Your task to perform on an android device: open the mobile data screen to see how much data has been used Image 0: 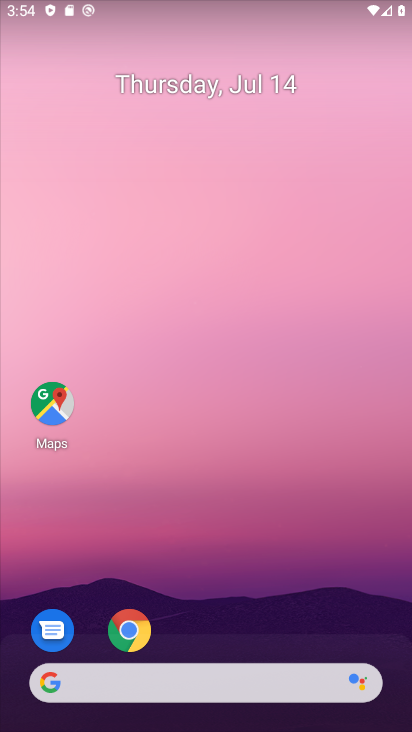
Step 0: drag from (180, 659) to (279, 76)
Your task to perform on an android device: open the mobile data screen to see how much data has been used Image 1: 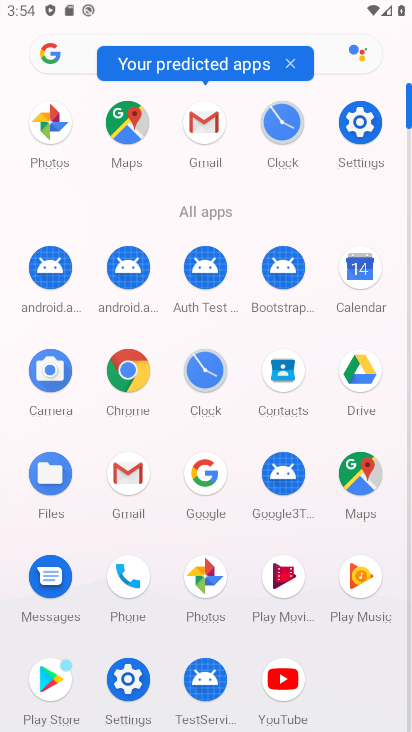
Step 1: click (122, 681)
Your task to perform on an android device: open the mobile data screen to see how much data has been used Image 2: 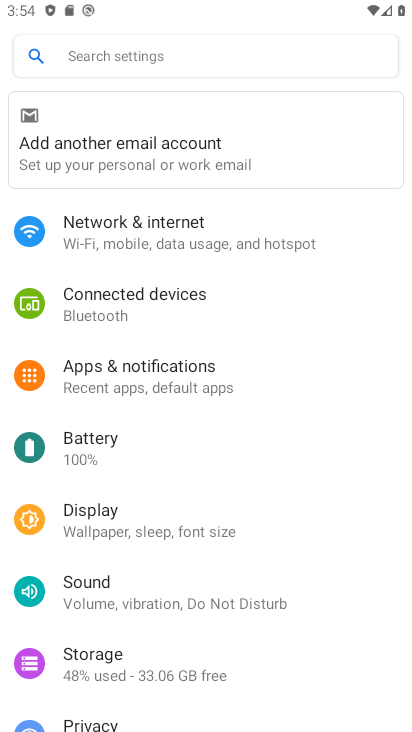
Step 2: click (181, 244)
Your task to perform on an android device: open the mobile data screen to see how much data has been used Image 3: 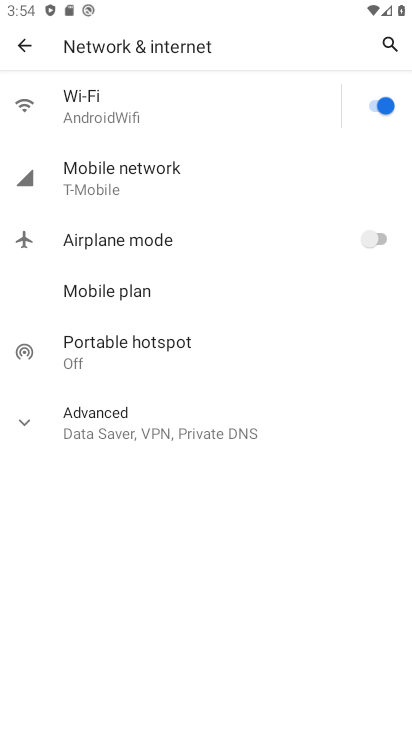
Step 3: click (187, 190)
Your task to perform on an android device: open the mobile data screen to see how much data has been used Image 4: 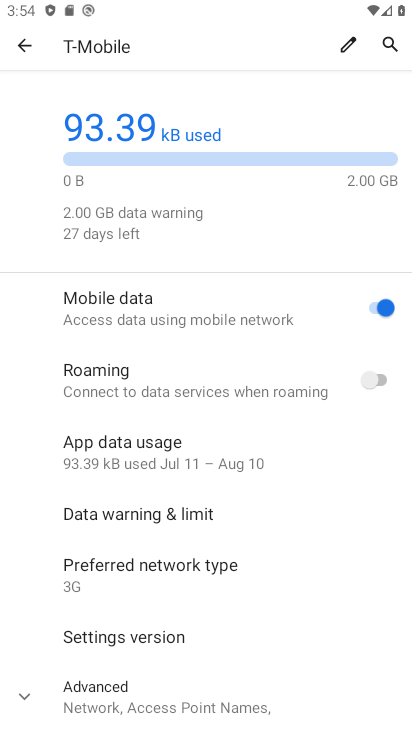
Step 4: task complete